Your task to perform on an android device: read, delete, or share a saved page in the chrome app Image 0: 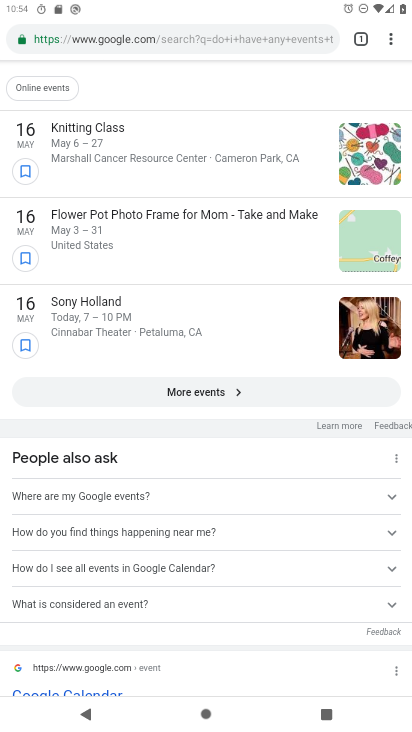
Step 0: press home button
Your task to perform on an android device: read, delete, or share a saved page in the chrome app Image 1: 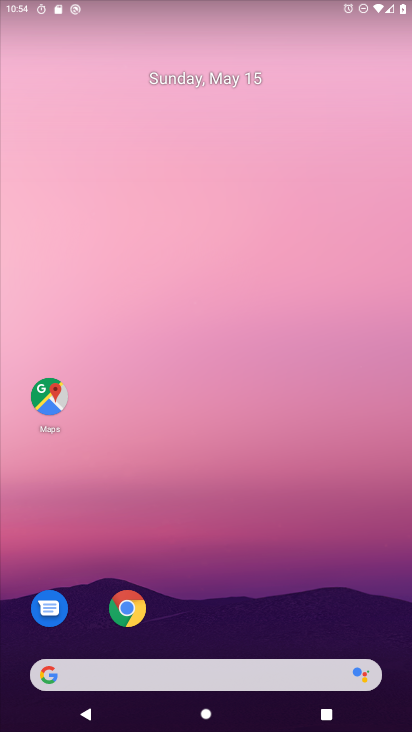
Step 1: drag from (315, 594) to (285, 119)
Your task to perform on an android device: read, delete, or share a saved page in the chrome app Image 2: 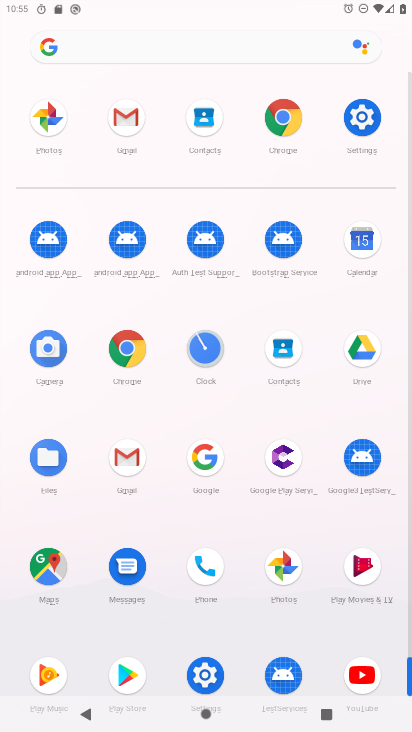
Step 2: click (127, 351)
Your task to perform on an android device: read, delete, or share a saved page in the chrome app Image 3: 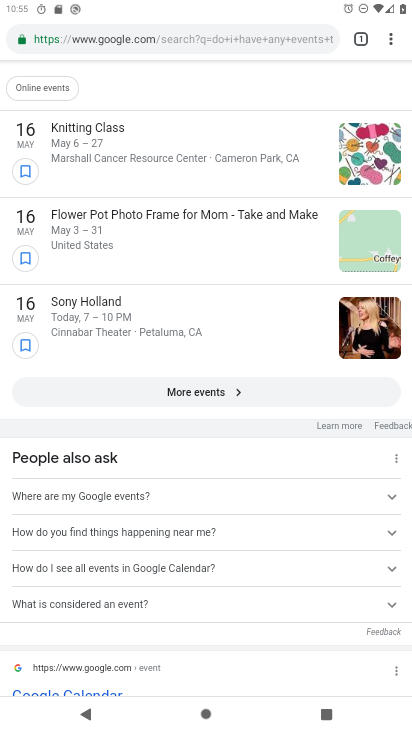
Step 3: task complete